Your task to perform on an android device: What is the recent news? Image 0: 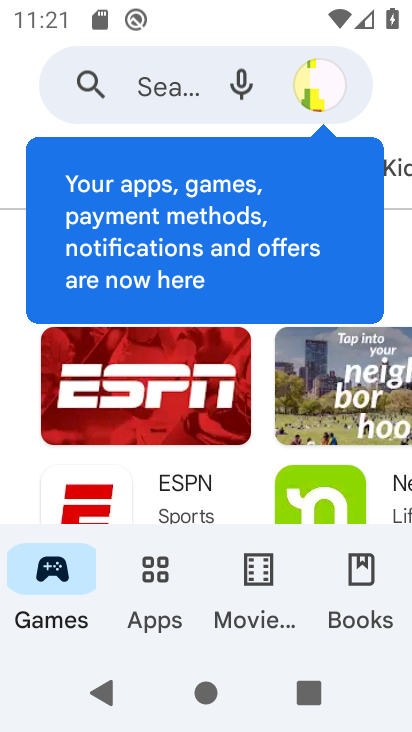
Step 0: press home button
Your task to perform on an android device: What is the recent news? Image 1: 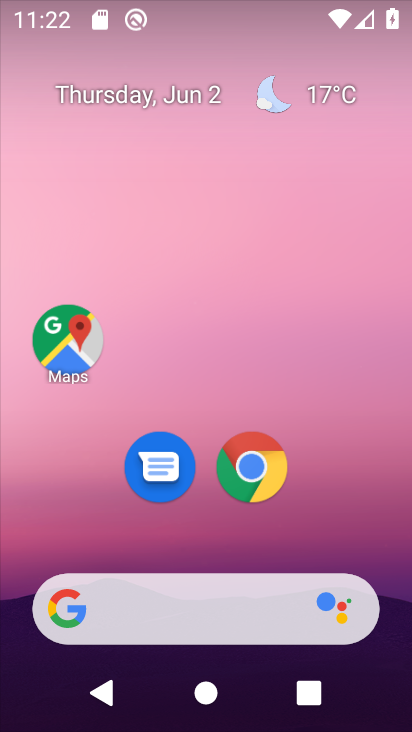
Step 1: click (238, 441)
Your task to perform on an android device: What is the recent news? Image 2: 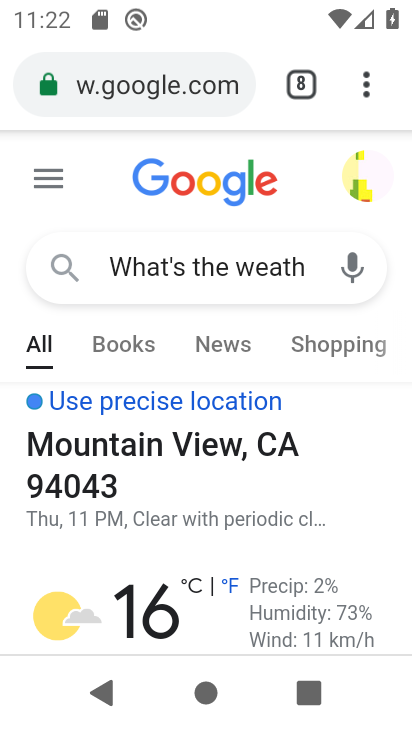
Step 2: click (342, 71)
Your task to perform on an android device: What is the recent news? Image 3: 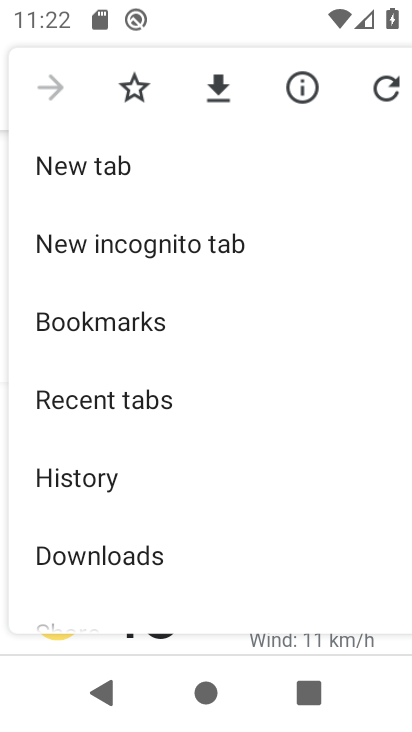
Step 3: click (105, 165)
Your task to perform on an android device: What is the recent news? Image 4: 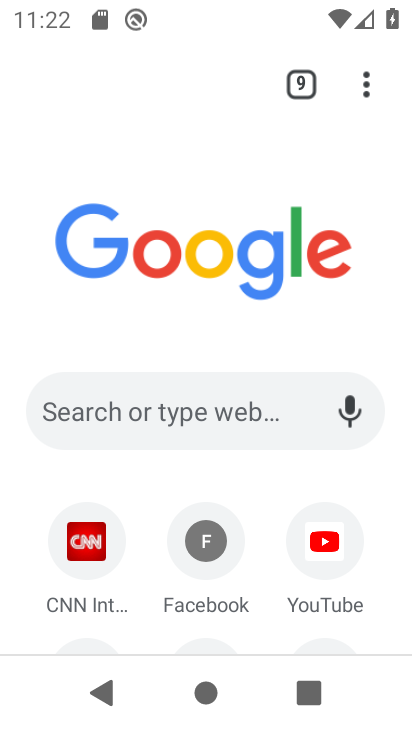
Step 4: click (216, 387)
Your task to perform on an android device: What is the recent news? Image 5: 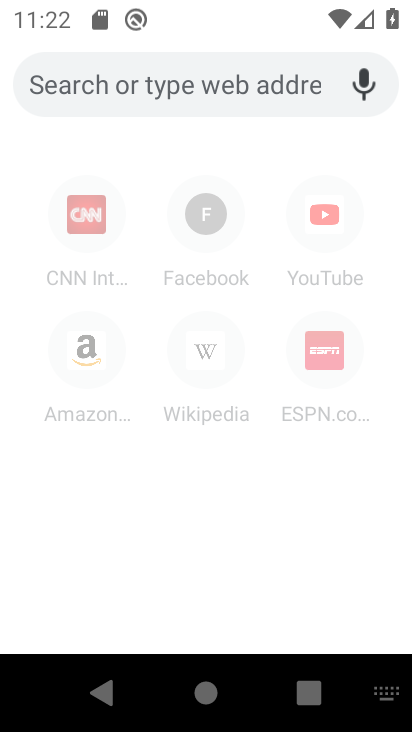
Step 5: type "What is the recent news?"
Your task to perform on an android device: What is the recent news? Image 6: 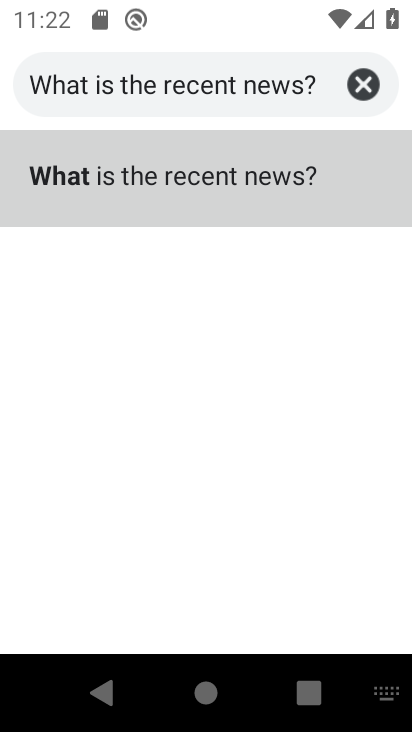
Step 6: click (326, 162)
Your task to perform on an android device: What is the recent news? Image 7: 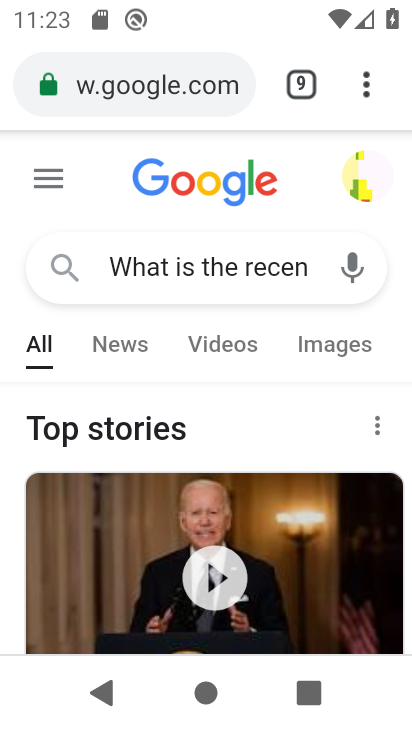
Step 7: task complete